Your task to perform on an android device: check google app version Image 0: 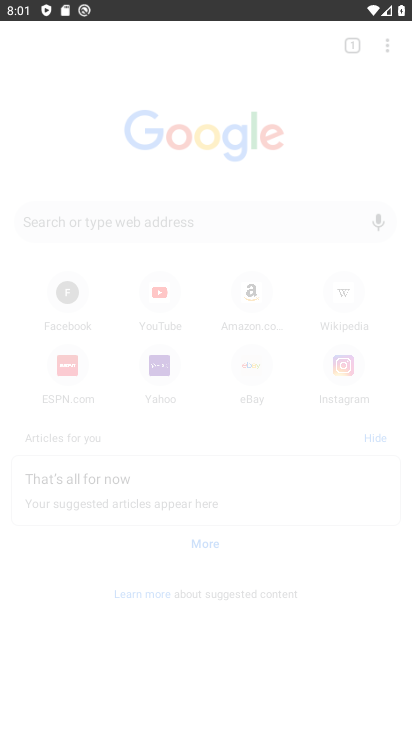
Step 0: drag from (195, 636) to (196, 121)
Your task to perform on an android device: check google app version Image 1: 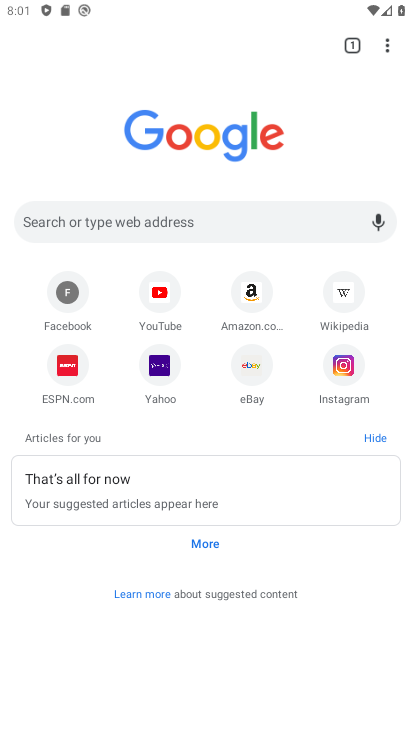
Step 1: press home button
Your task to perform on an android device: check google app version Image 2: 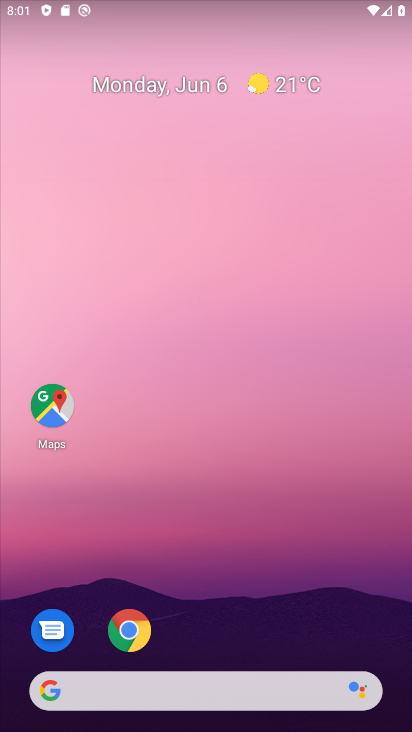
Step 2: drag from (210, 650) to (194, 180)
Your task to perform on an android device: check google app version Image 3: 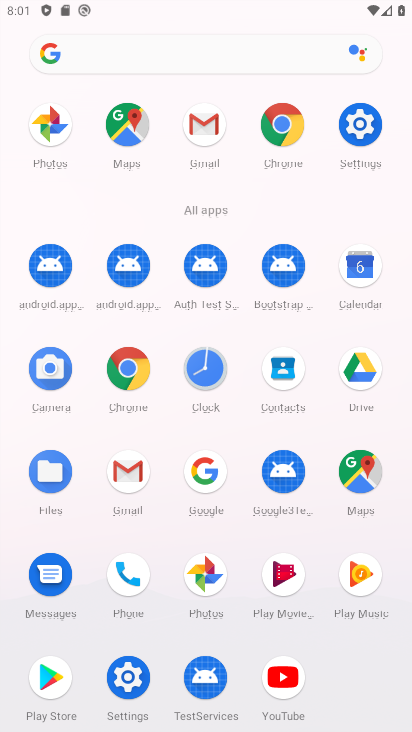
Step 3: click (351, 133)
Your task to perform on an android device: check google app version Image 4: 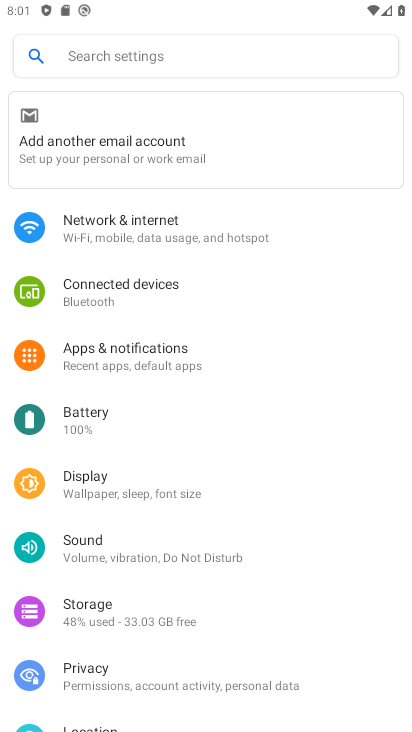
Step 4: press home button
Your task to perform on an android device: check google app version Image 5: 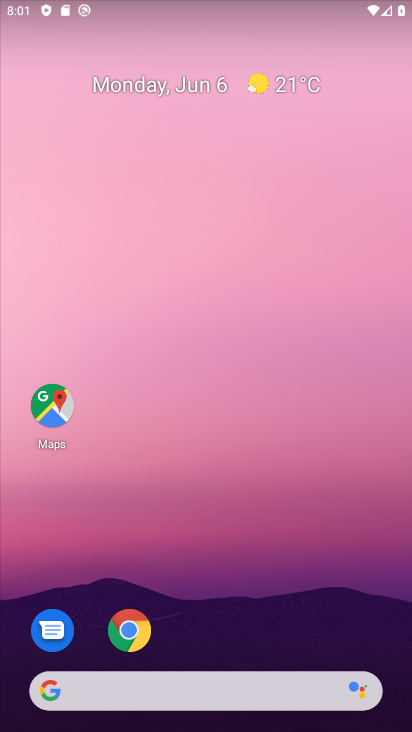
Step 5: drag from (195, 645) to (193, 271)
Your task to perform on an android device: check google app version Image 6: 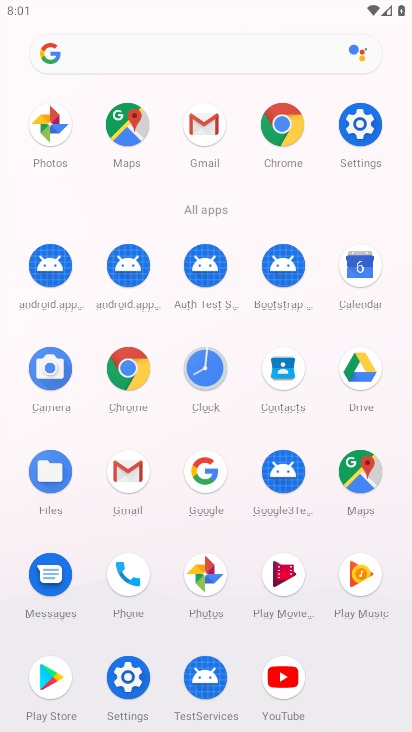
Step 6: click (124, 385)
Your task to perform on an android device: check google app version Image 7: 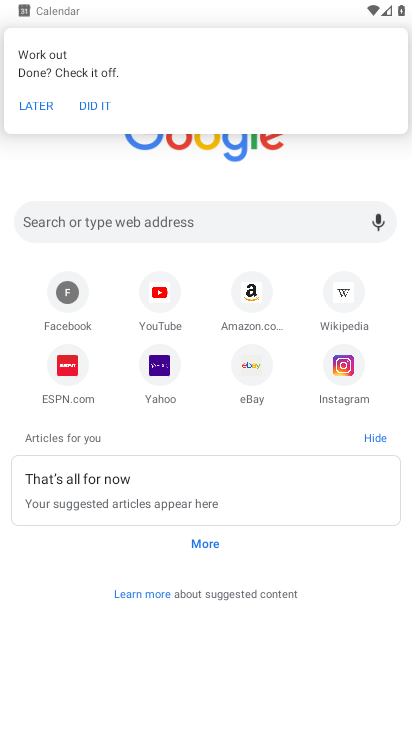
Step 7: click (87, 100)
Your task to perform on an android device: check google app version Image 8: 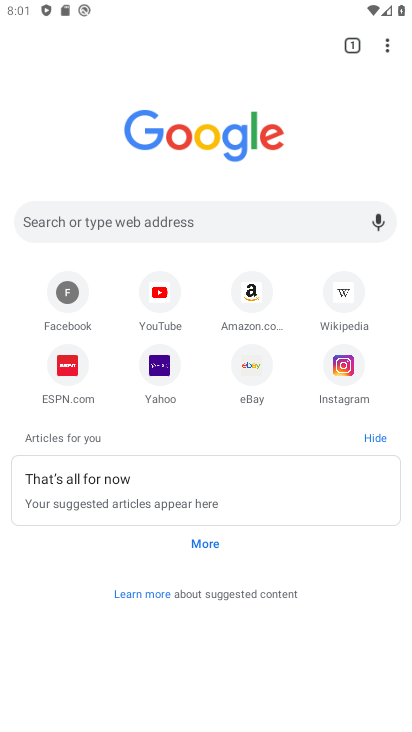
Step 8: drag from (388, 52) to (241, 376)
Your task to perform on an android device: check google app version Image 9: 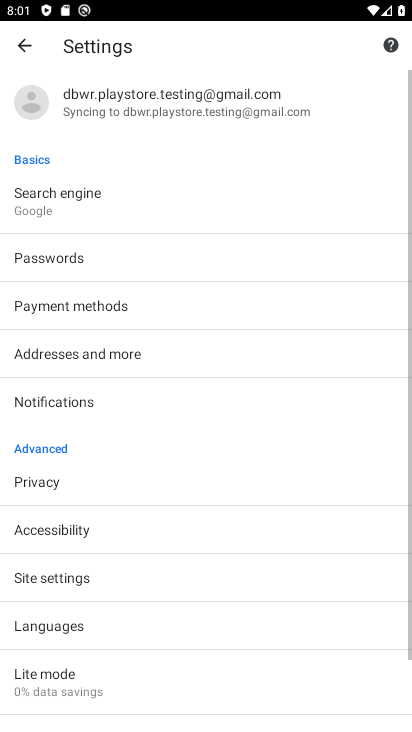
Step 9: drag from (152, 621) to (188, 325)
Your task to perform on an android device: check google app version Image 10: 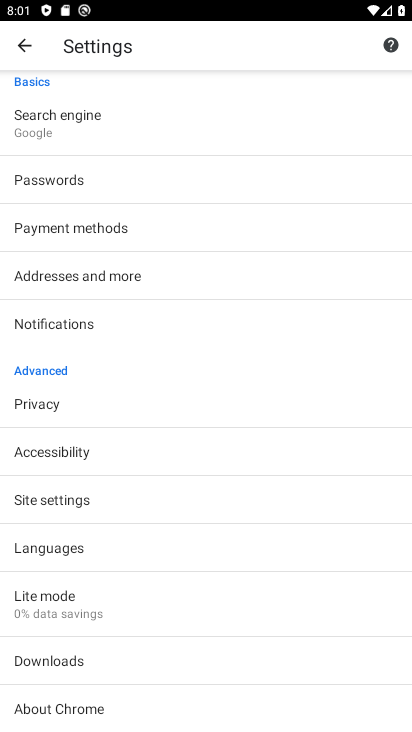
Step 10: drag from (183, 657) to (213, 412)
Your task to perform on an android device: check google app version Image 11: 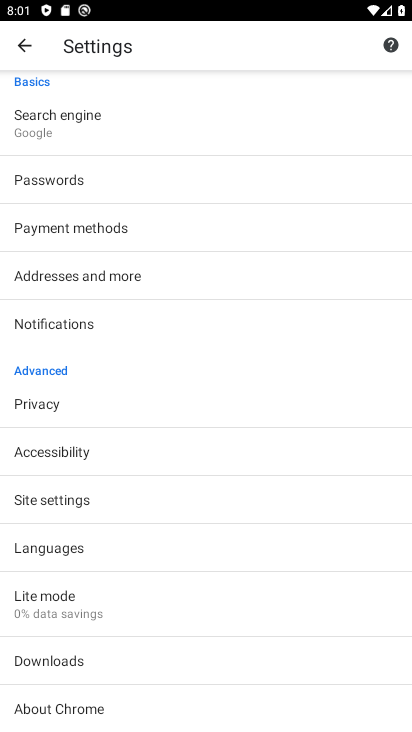
Step 11: drag from (216, 648) to (208, 339)
Your task to perform on an android device: check google app version Image 12: 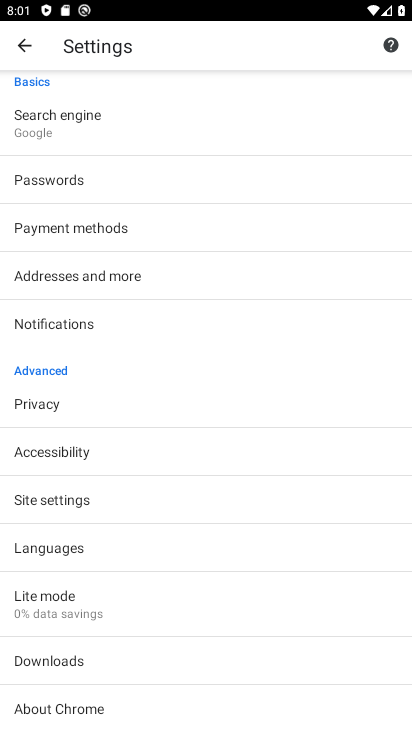
Step 12: drag from (151, 605) to (170, 355)
Your task to perform on an android device: check google app version Image 13: 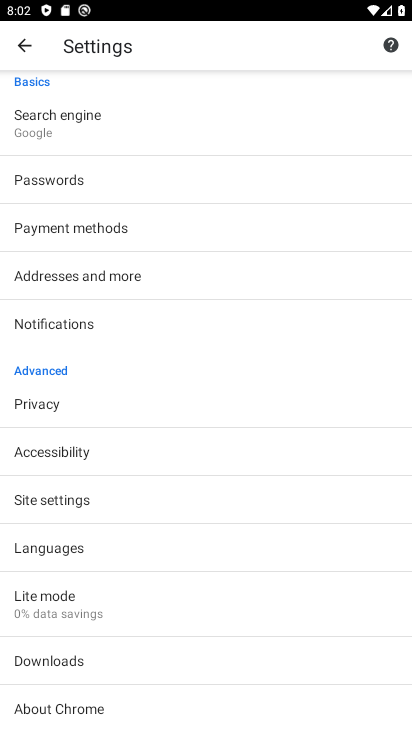
Step 13: drag from (149, 651) to (147, 438)
Your task to perform on an android device: check google app version Image 14: 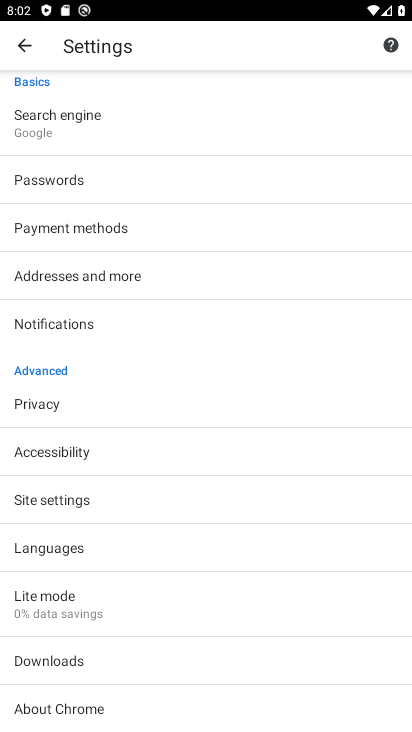
Step 14: press home button
Your task to perform on an android device: check google app version Image 15: 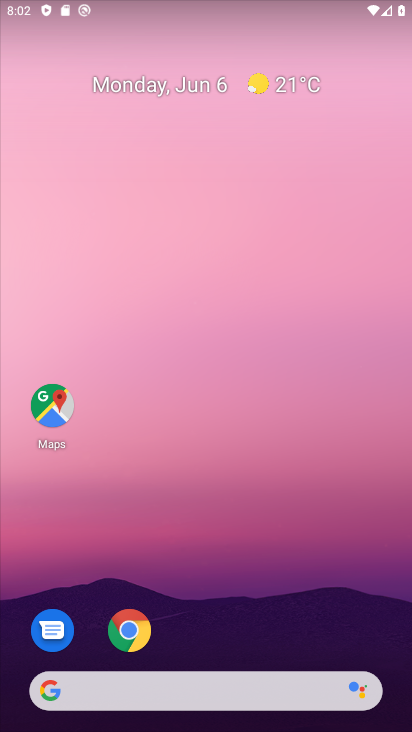
Step 15: drag from (214, 642) to (218, 256)
Your task to perform on an android device: check google app version Image 16: 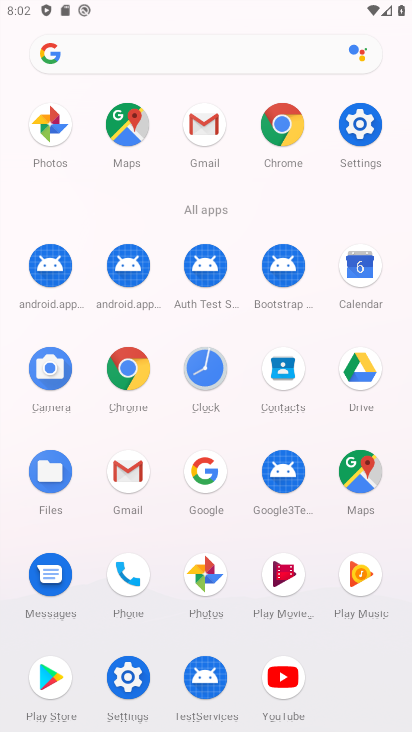
Step 16: click (209, 485)
Your task to perform on an android device: check google app version Image 17: 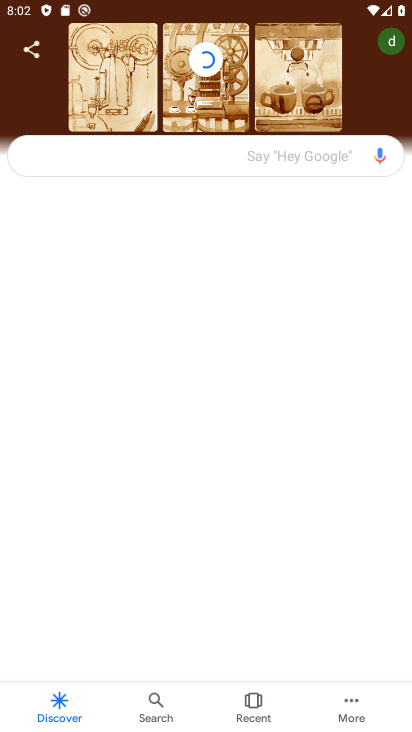
Step 17: click (355, 712)
Your task to perform on an android device: check google app version Image 18: 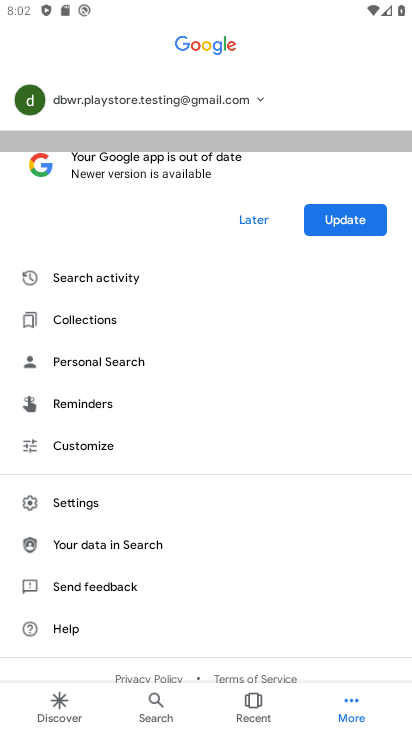
Step 18: drag from (87, 606) to (116, 414)
Your task to perform on an android device: check google app version Image 19: 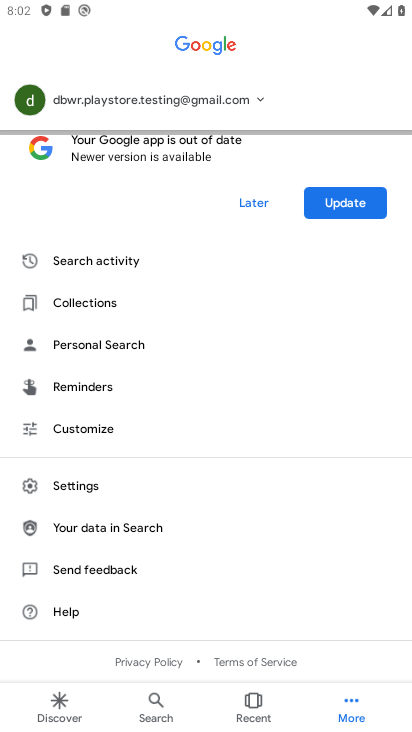
Step 19: click (96, 484)
Your task to perform on an android device: check google app version Image 20: 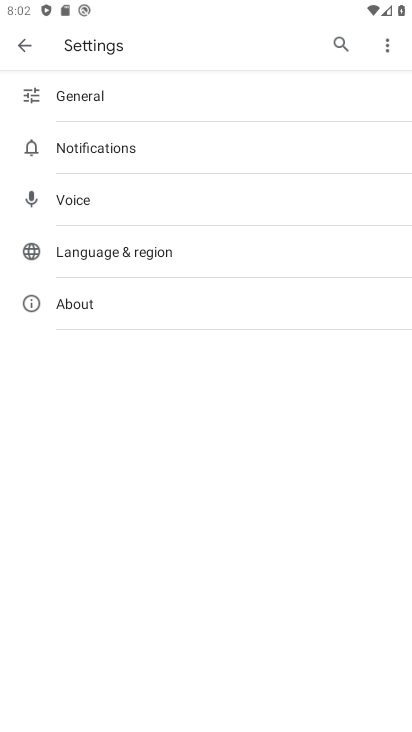
Step 20: click (101, 292)
Your task to perform on an android device: check google app version Image 21: 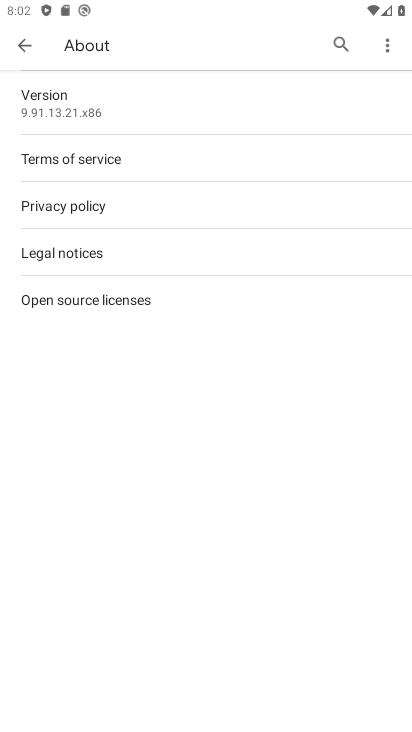
Step 21: click (95, 95)
Your task to perform on an android device: check google app version Image 22: 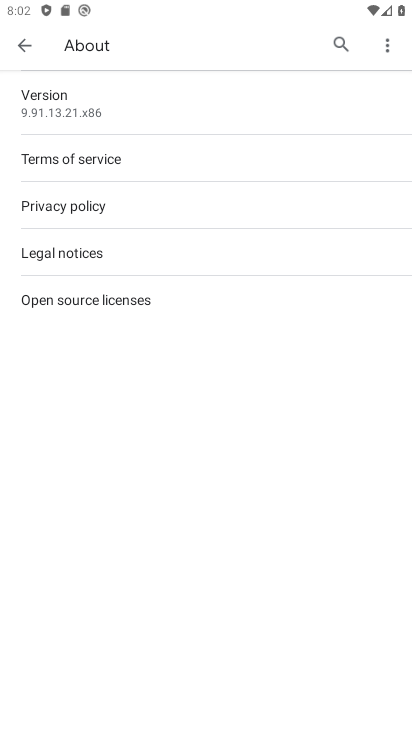
Step 22: click (101, 105)
Your task to perform on an android device: check google app version Image 23: 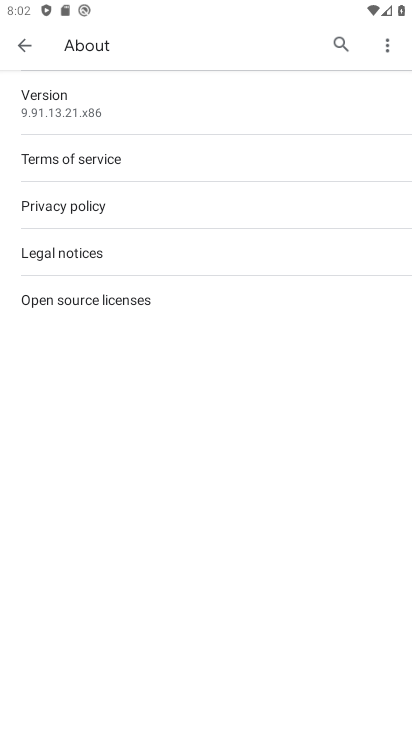
Step 23: task complete